Your task to perform on an android device: clear all cookies in the chrome app Image 0: 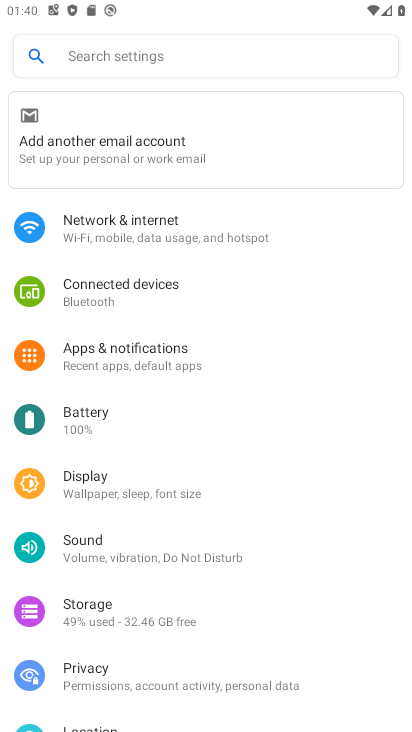
Step 0: press home button
Your task to perform on an android device: clear all cookies in the chrome app Image 1: 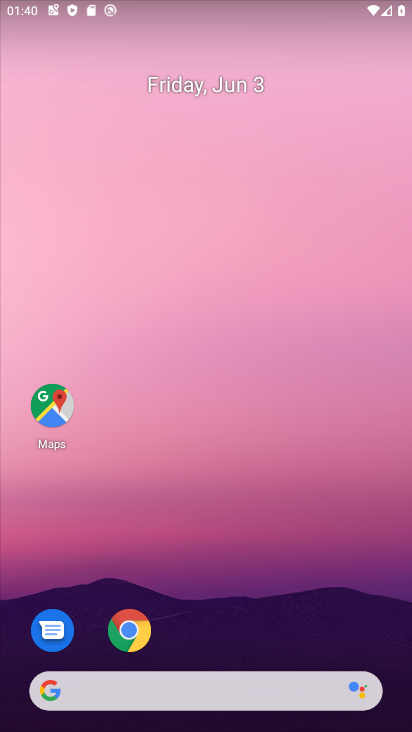
Step 1: click (141, 622)
Your task to perform on an android device: clear all cookies in the chrome app Image 2: 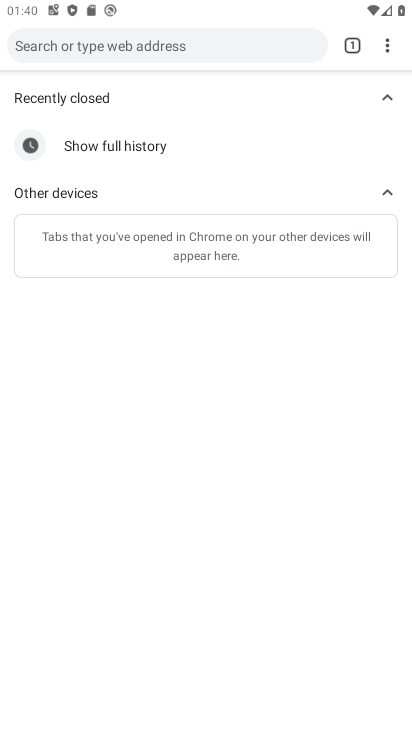
Step 2: click (395, 49)
Your task to perform on an android device: clear all cookies in the chrome app Image 3: 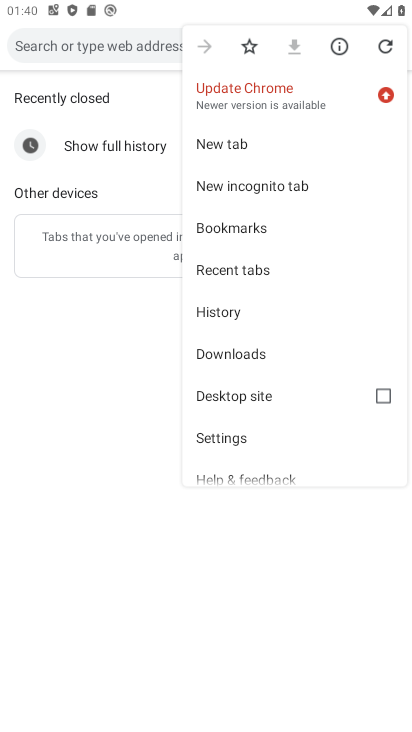
Step 3: click (308, 302)
Your task to perform on an android device: clear all cookies in the chrome app Image 4: 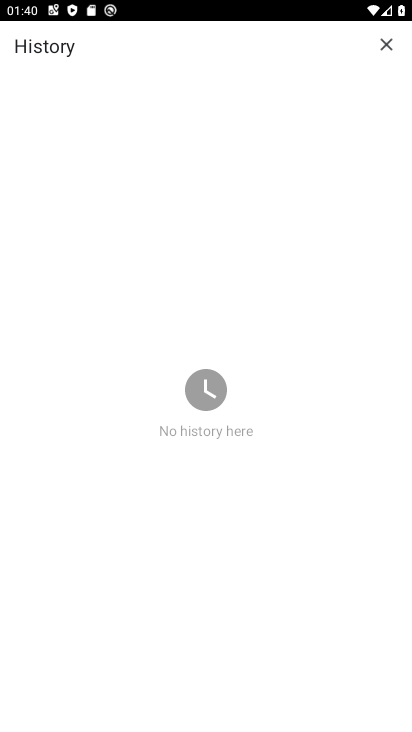
Step 4: task complete